Your task to perform on an android device: turn off smart reply in the gmail app Image 0: 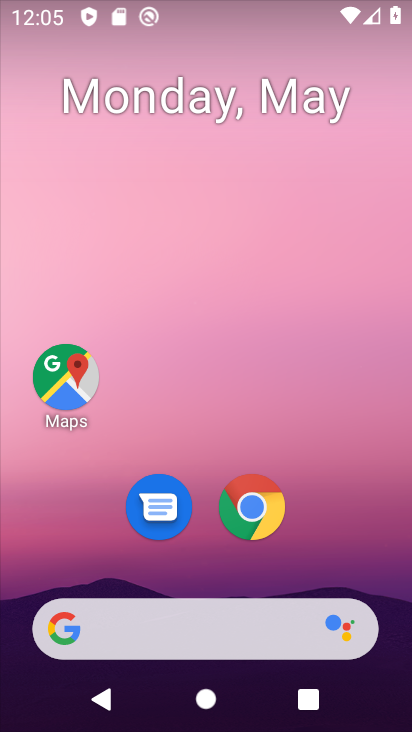
Step 0: drag from (239, 728) to (241, 36)
Your task to perform on an android device: turn off smart reply in the gmail app Image 1: 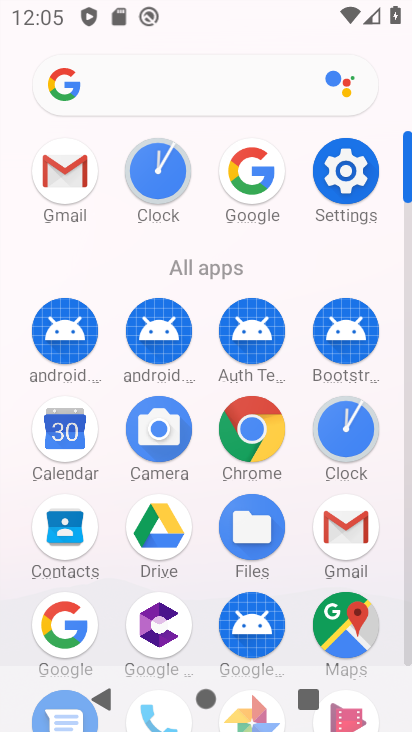
Step 1: click (352, 530)
Your task to perform on an android device: turn off smart reply in the gmail app Image 2: 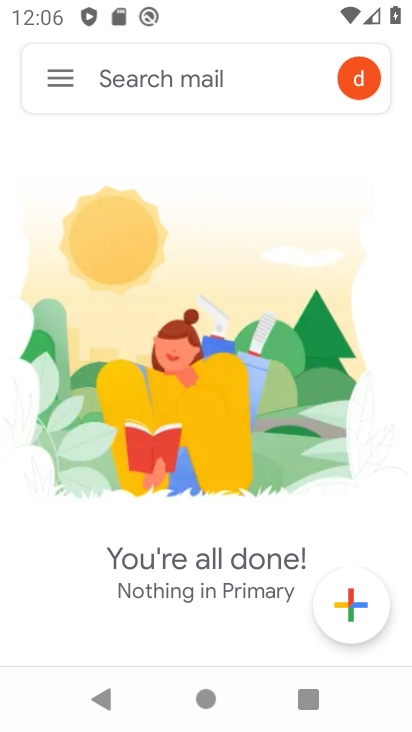
Step 2: click (54, 78)
Your task to perform on an android device: turn off smart reply in the gmail app Image 3: 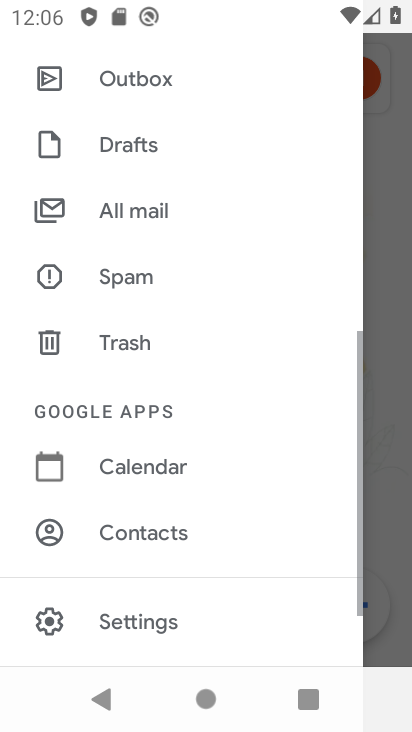
Step 3: click (134, 621)
Your task to perform on an android device: turn off smart reply in the gmail app Image 4: 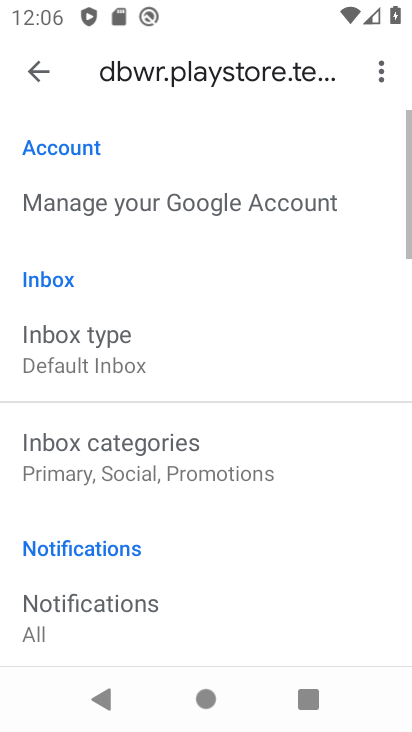
Step 4: task complete